Your task to perform on an android device: check the backup settings in the google photos Image 0: 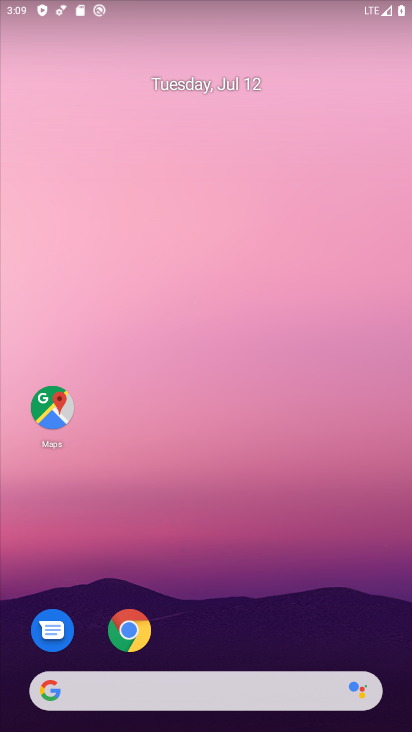
Step 0: drag from (218, 611) to (410, 227)
Your task to perform on an android device: check the backup settings in the google photos Image 1: 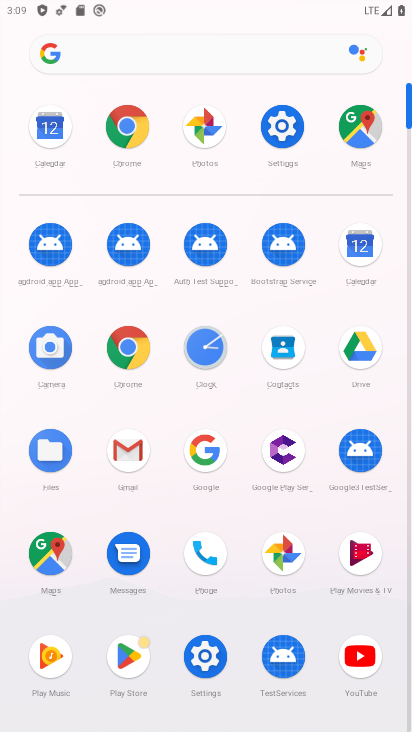
Step 1: click (303, 551)
Your task to perform on an android device: check the backup settings in the google photos Image 2: 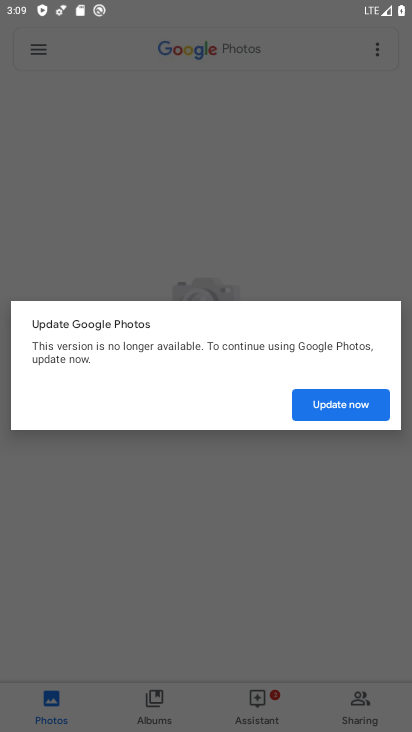
Step 2: click (301, 505)
Your task to perform on an android device: check the backup settings in the google photos Image 3: 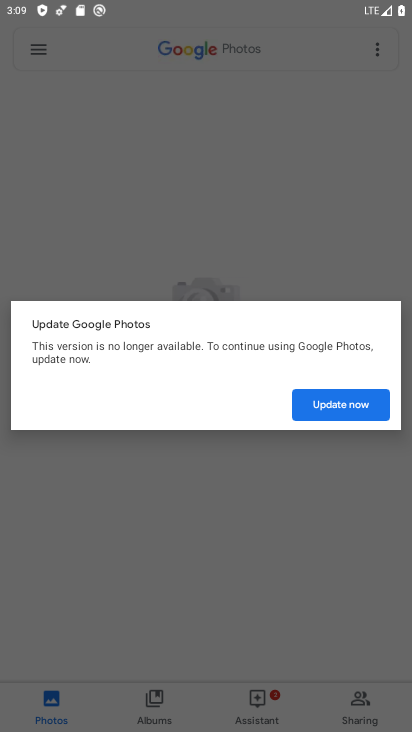
Step 3: click (336, 408)
Your task to perform on an android device: check the backup settings in the google photos Image 4: 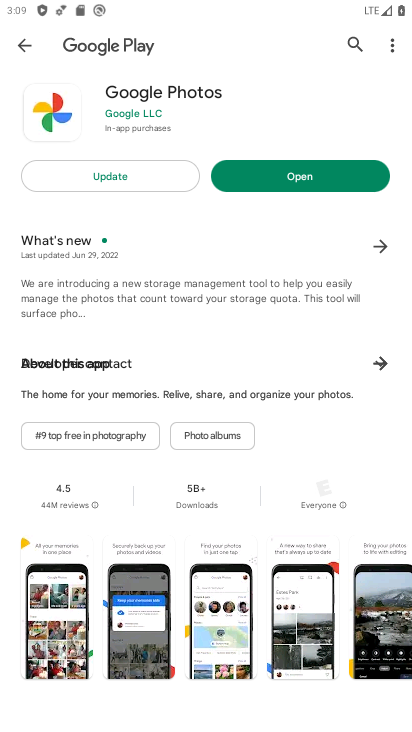
Step 4: click (301, 190)
Your task to perform on an android device: check the backup settings in the google photos Image 5: 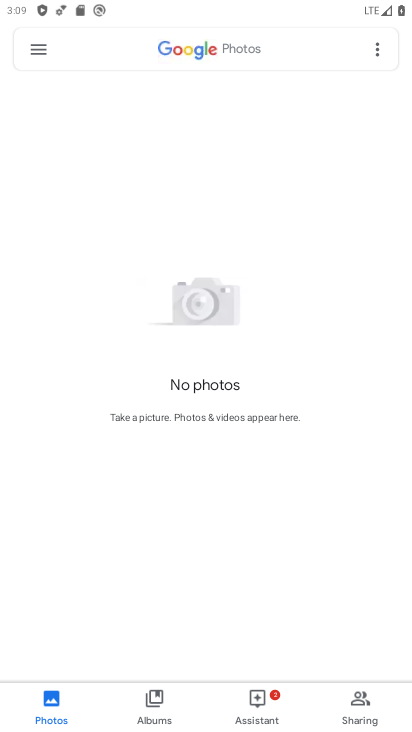
Step 5: click (31, 47)
Your task to perform on an android device: check the backup settings in the google photos Image 6: 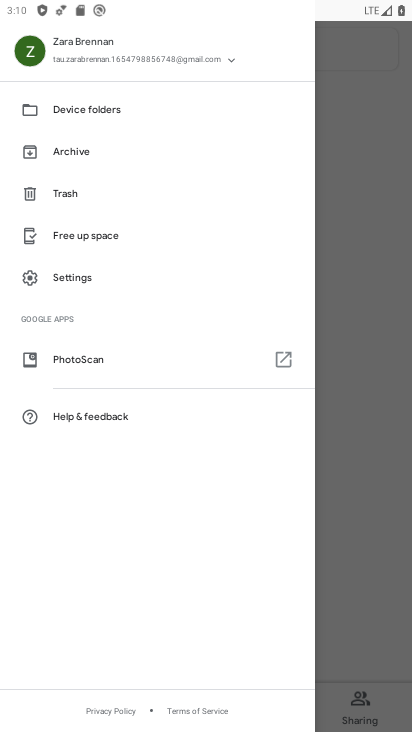
Step 6: click (86, 296)
Your task to perform on an android device: check the backup settings in the google photos Image 7: 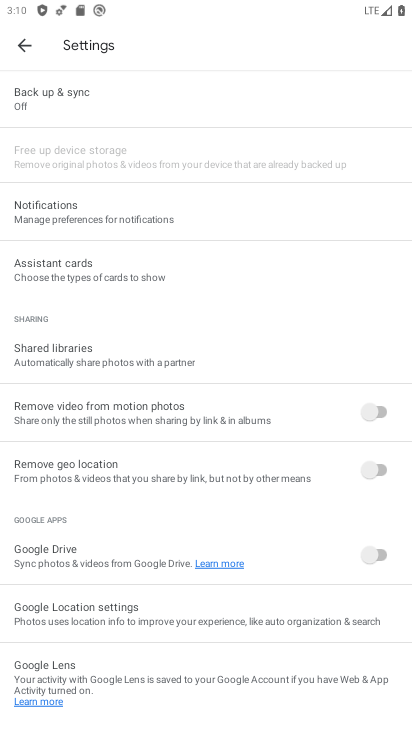
Step 7: click (99, 101)
Your task to perform on an android device: check the backup settings in the google photos Image 8: 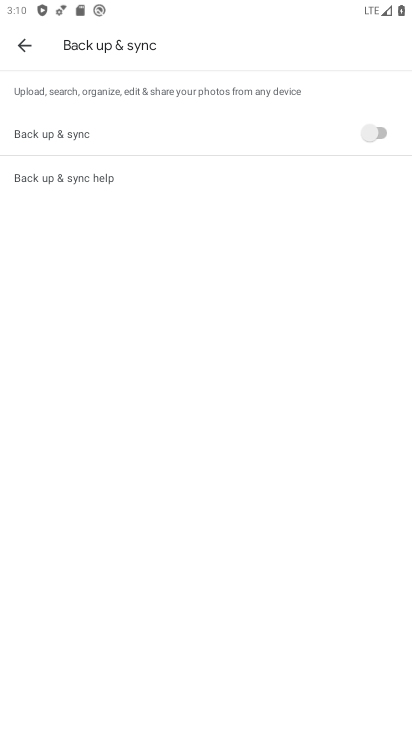
Step 8: task complete